Your task to perform on an android device: Search for sushi restaurants on Maps Image 0: 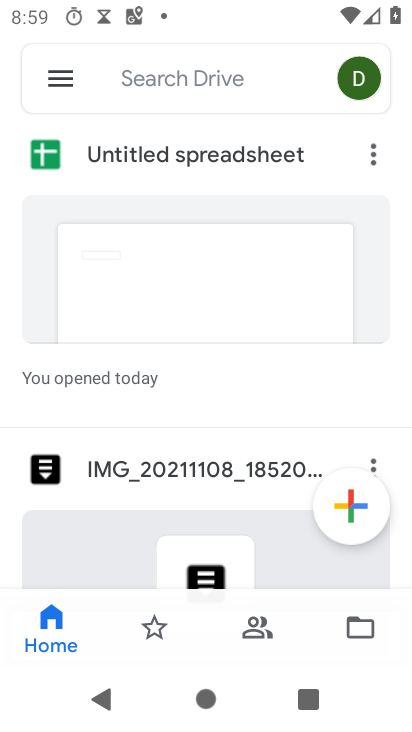
Step 0: press home button
Your task to perform on an android device: Search for sushi restaurants on Maps Image 1: 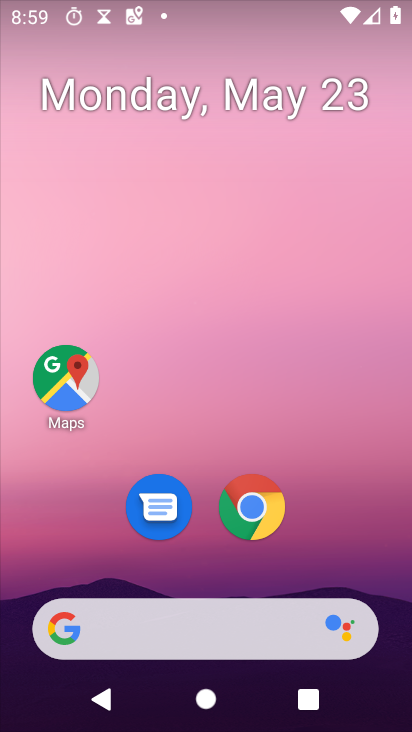
Step 1: click (76, 403)
Your task to perform on an android device: Search for sushi restaurants on Maps Image 2: 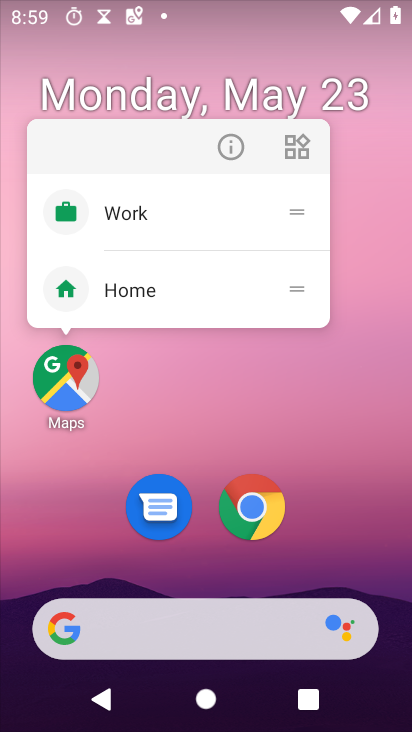
Step 2: click (76, 403)
Your task to perform on an android device: Search for sushi restaurants on Maps Image 3: 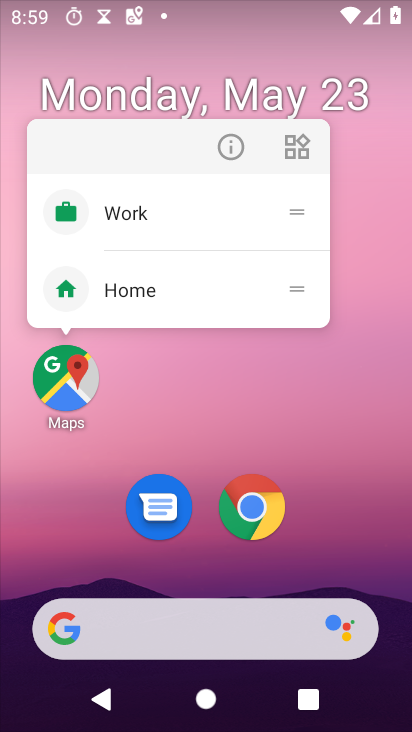
Step 3: drag from (366, 493) to (287, 27)
Your task to perform on an android device: Search for sushi restaurants on Maps Image 4: 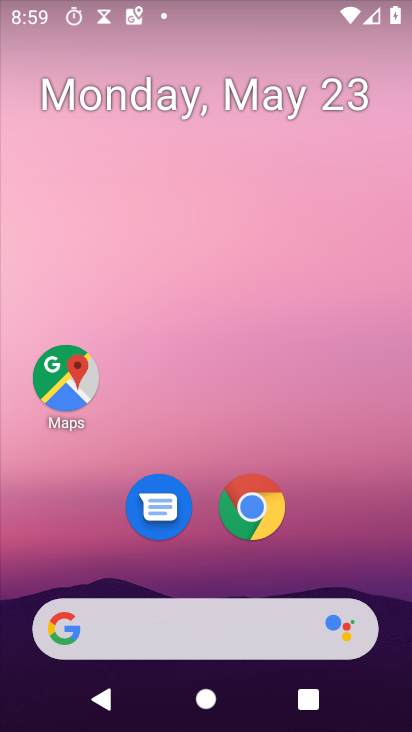
Step 4: drag from (377, 497) to (290, 1)
Your task to perform on an android device: Search for sushi restaurants on Maps Image 5: 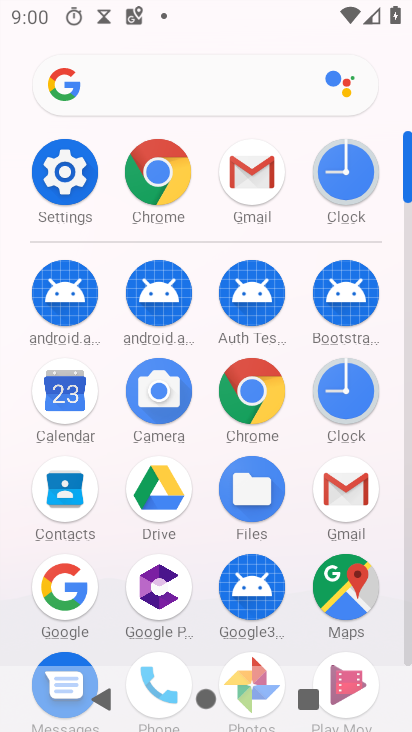
Step 5: click (355, 593)
Your task to perform on an android device: Search for sushi restaurants on Maps Image 6: 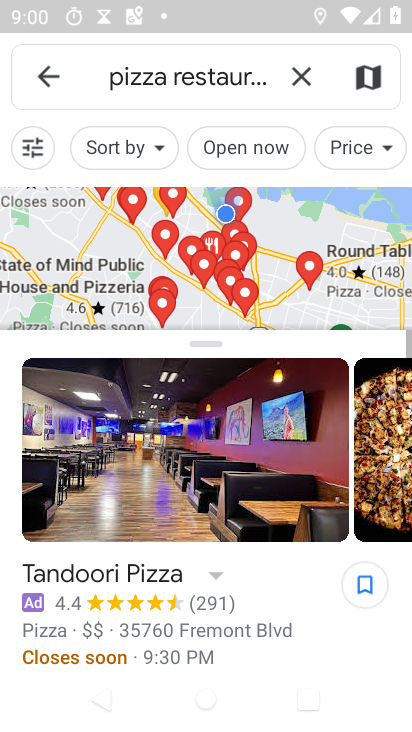
Step 6: click (288, 67)
Your task to perform on an android device: Search for sushi restaurants on Maps Image 7: 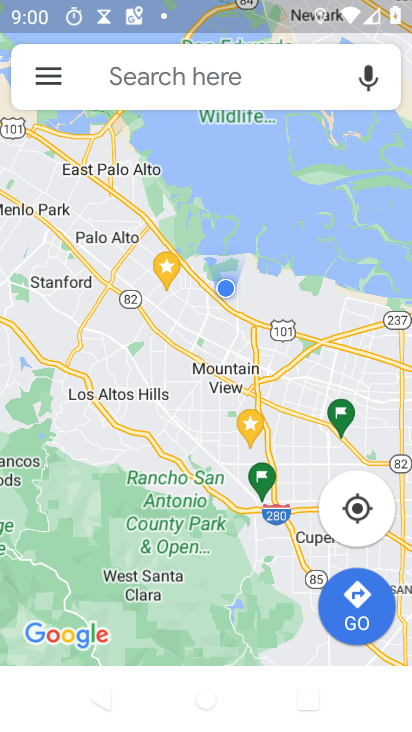
Step 7: click (179, 67)
Your task to perform on an android device: Search for sushi restaurants on Maps Image 8: 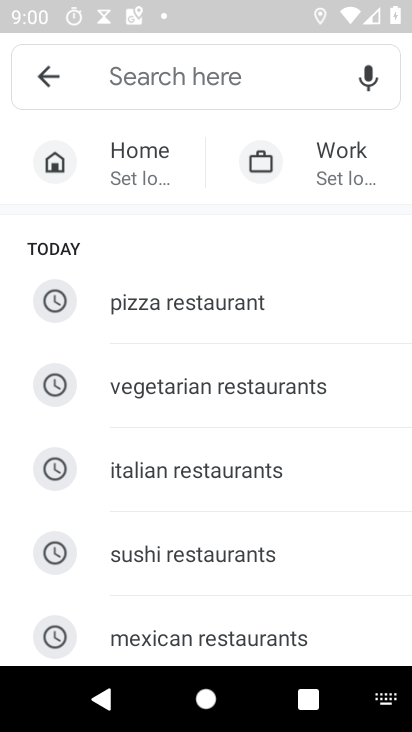
Step 8: click (171, 525)
Your task to perform on an android device: Search for sushi restaurants on Maps Image 9: 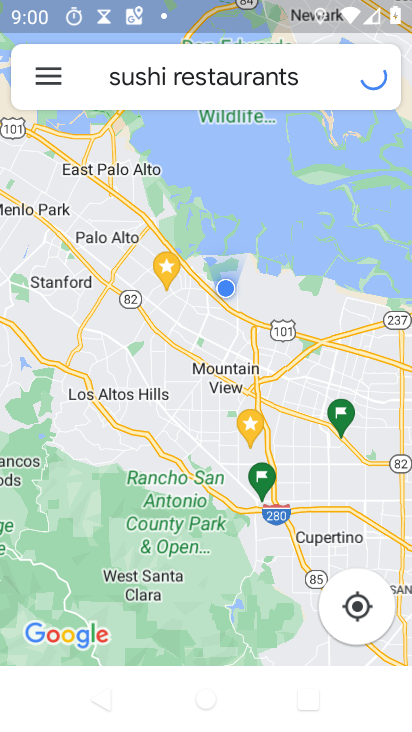
Step 9: click (166, 543)
Your task to perform on an android device: Search for sushi restaurants on Maps Image 10: 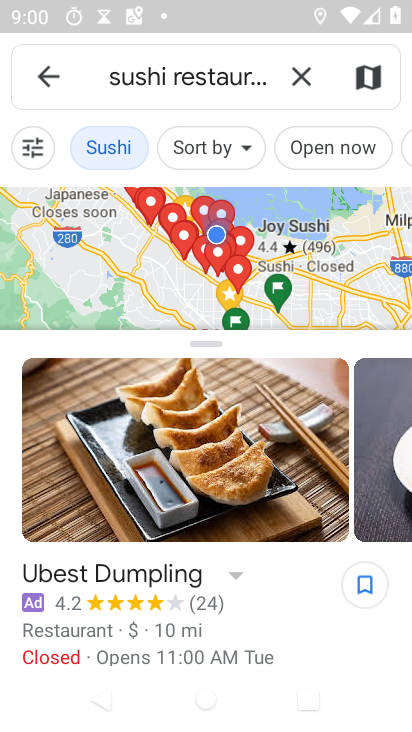
Step 10: task complete